Your task to perform on an android device: Check the weather Image 0: 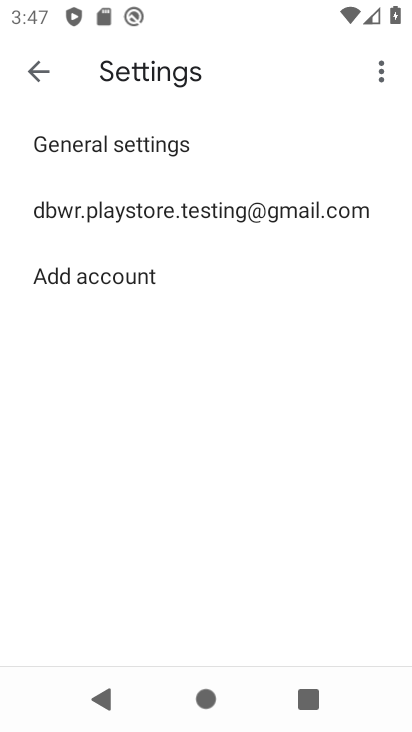
Step 0: press home button
Your task to perform on an android device: Check the weather Image 1: 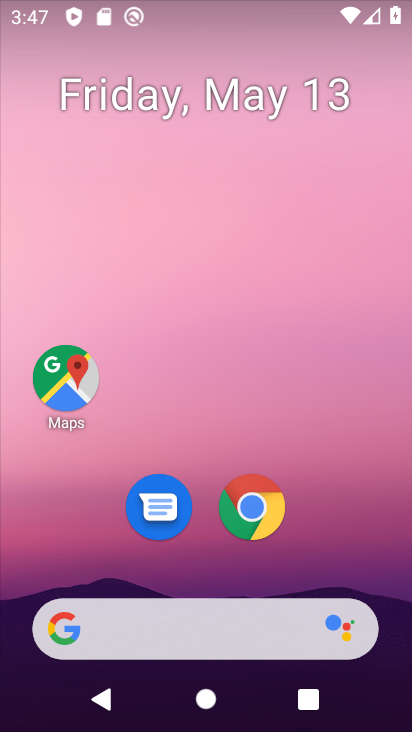
Step 1: click (254, 511)
Your task to perform on an android device: Check the weather Image 2: 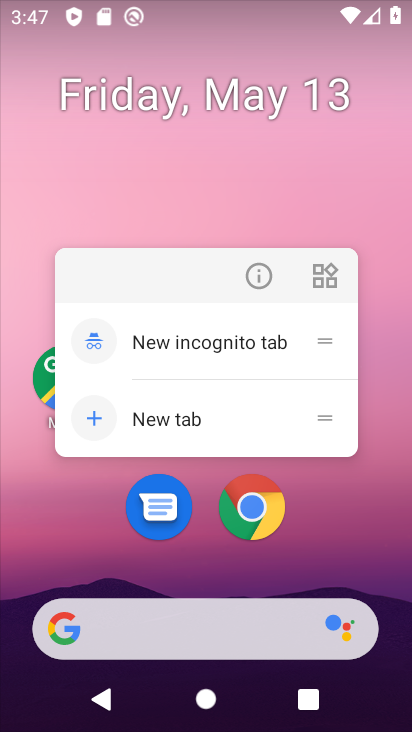
Step 2: click (254, 511)
Your task to perform on an android device: Check the weather Image 3: 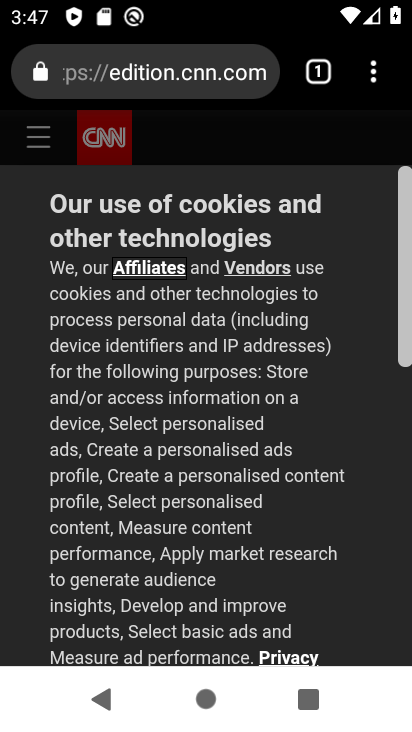
Step 3: click (182, 72)
Your task to perform on an android device: Check the weather Image 4: 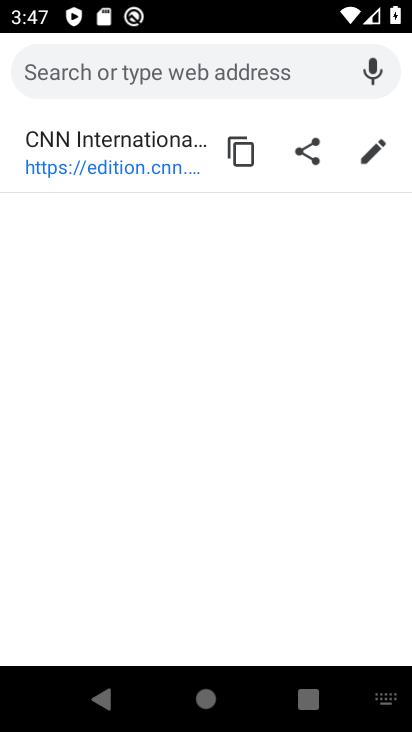
Step 4: type "weather"
Your task to perform on an android device: Check the weather Image 5: 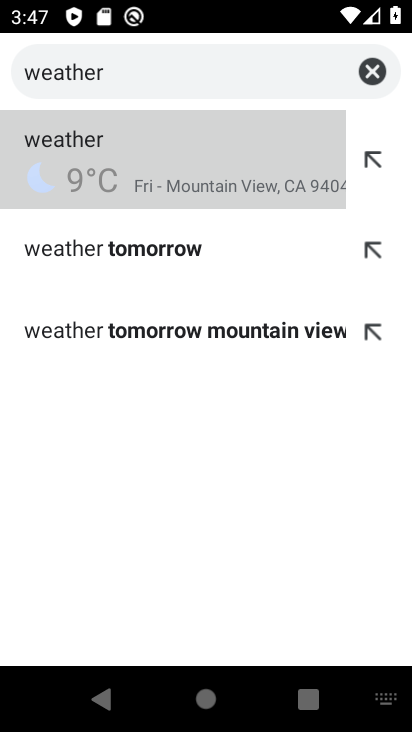
Step 5: click (185, 152)
Your task to perform on an android device: Check the weather Image 6: 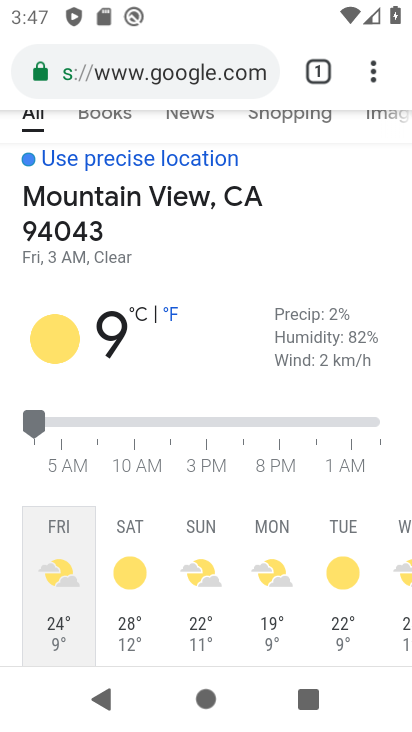
Step 6: task complete